Your task to perform on an android device: turn smart compose on in the gmail app Image 0: 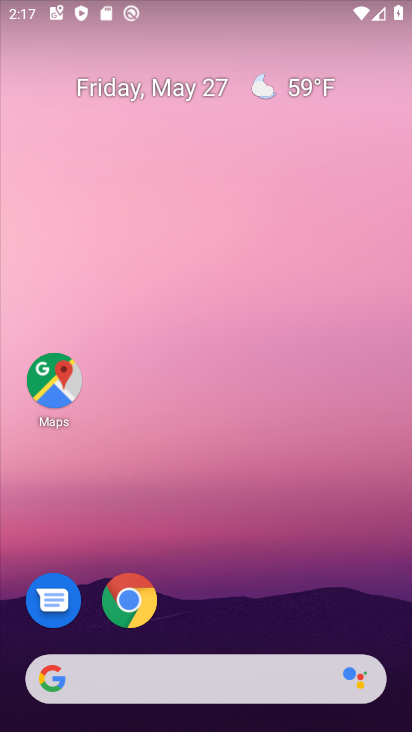
Step 0: drag from (241, 598) to (172, 102)
Your task to perform on an android device: turn smart compose on in the gmail app Image 1: 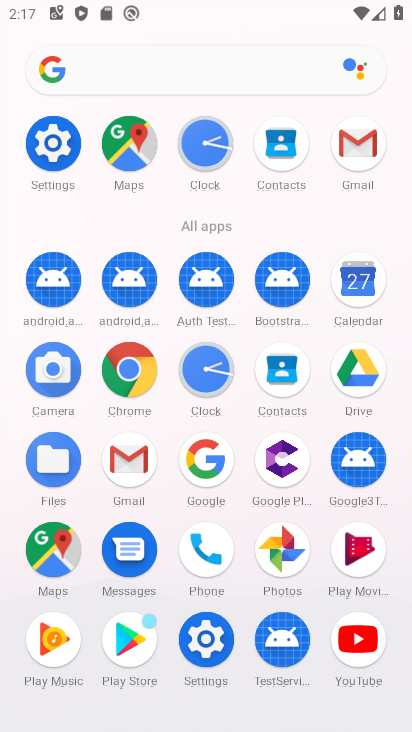
Step 1: click (357, 140)
Your task to perform on an android device: turn smart compose on in the gmail app Image 2: 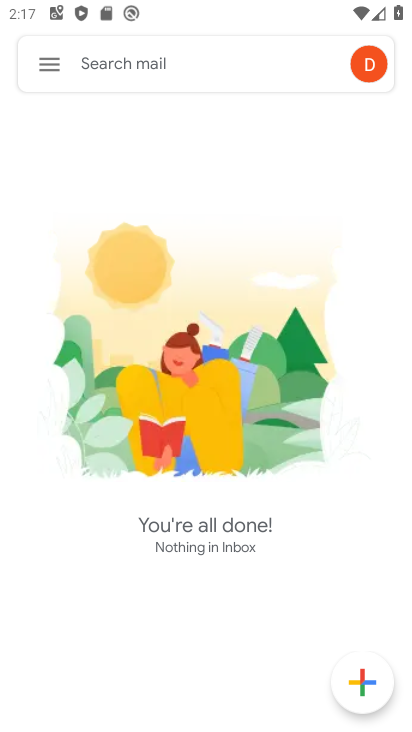
Step 2: click (48, 65)
Your task to perform on an android device: turn smart compose on in the gmail app Image 3: 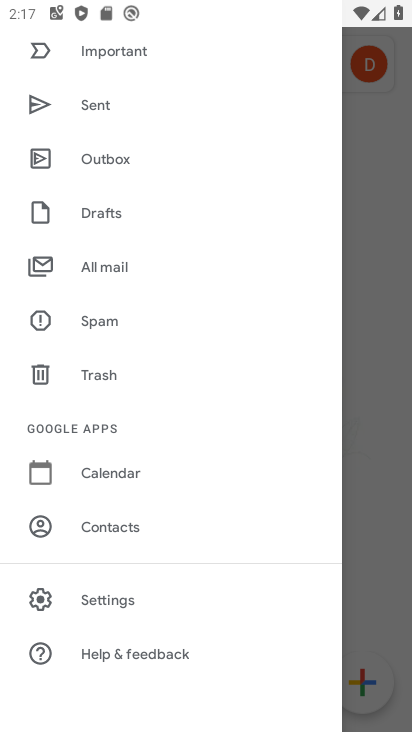
Step 3: drag from (135, 238) to (132, 320)
Your task to perform on an android device: turn smart compose on in the gmail app Image 4: 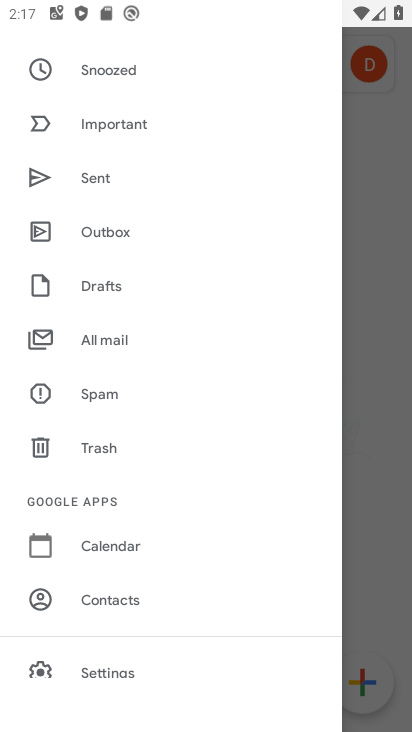
Step 4: drag from (138, 205) to (155, 286)
Your task to perform on an android device: turn smart compose on in the gmail app Image 5: 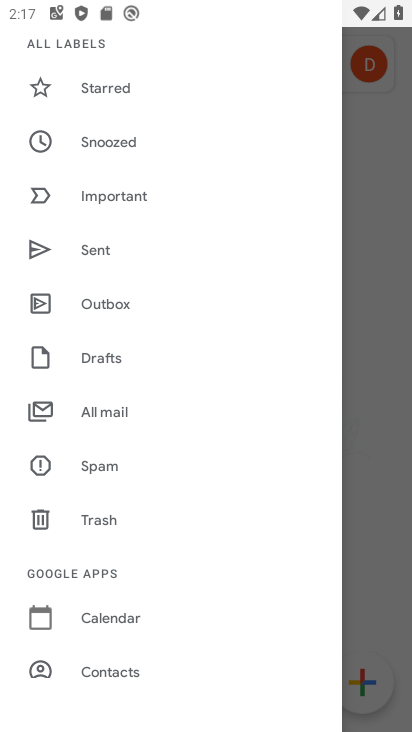
Step 5: drag from (133, 498) to (137, 388)
Your task to perform on an android device: turn smart compose on in the gmail app Image 6: 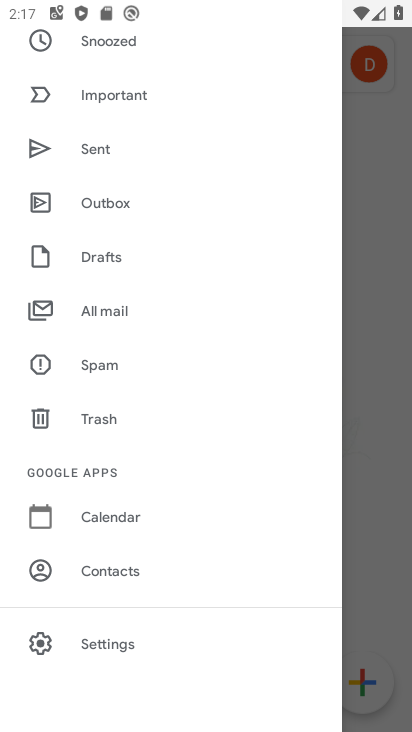
Step 6: drag from (134, 497) to (142, 405)
Your task to perform on an android device: turn smart compose on in the gmail app Image 7: 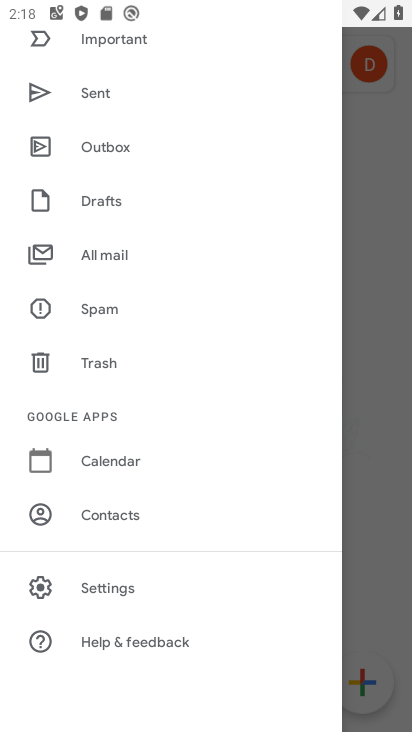
Step 7: click (126, 581)
Your task to perform on an android device: turn smart compose on in the gmail app Image 8: 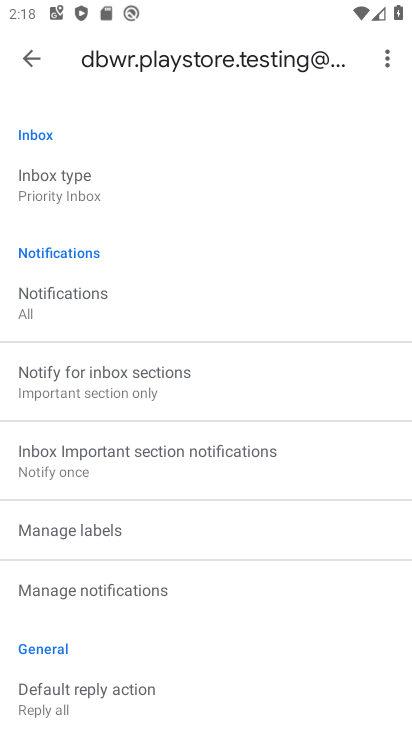
Step 8: task complete